Your task to perform on an android device: turn pop-ups on in chrome Image 0: 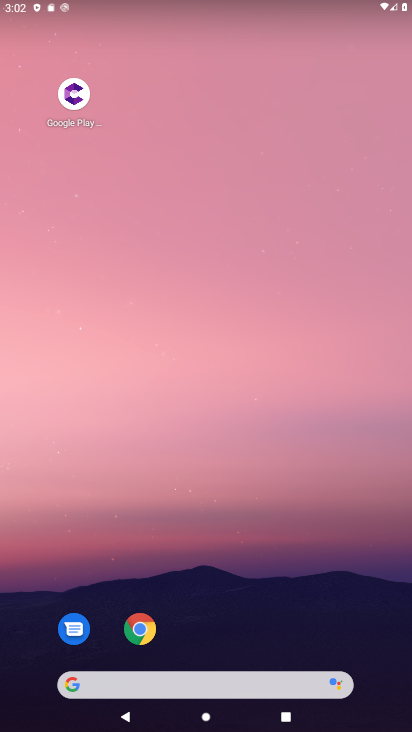
Step 0: drag from (169, 310) to (149, 14)
Your task to perform on an android device: turn pop-ups on in chrome Image 1: 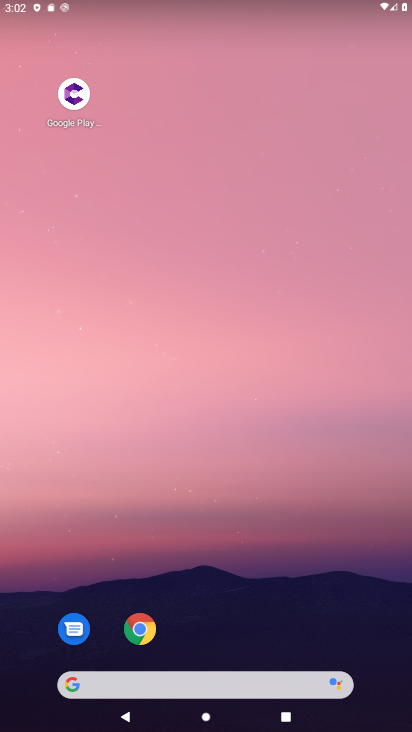
Step 1: drag from (202, 506) to (94, 16)
Your task to perform on an android device: turn pop-ups on in chrome Image 2: 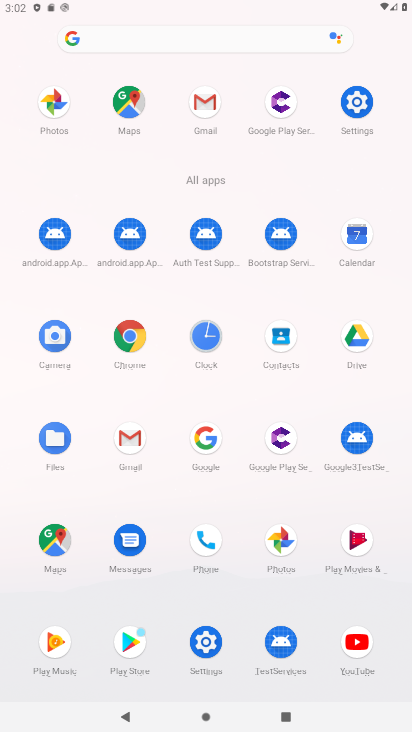
Step 2: click (132, 348)
Your task to perform on an android device: turn pop-ups on in chrome Image 3: 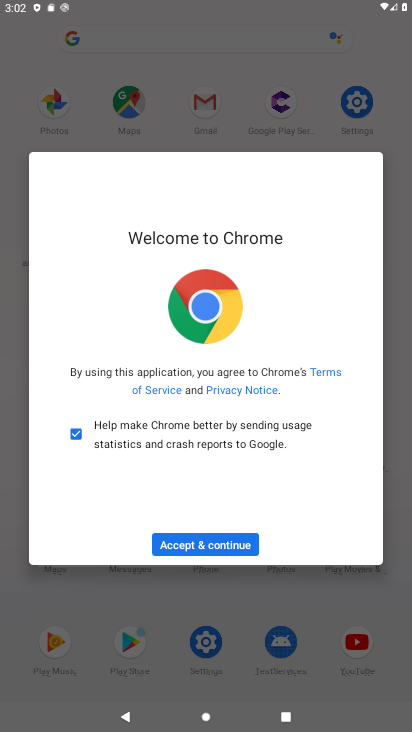
Step 3: click (238, 538)
Your task to perform on an android device: turn pop-ups on in chrome Image 4: 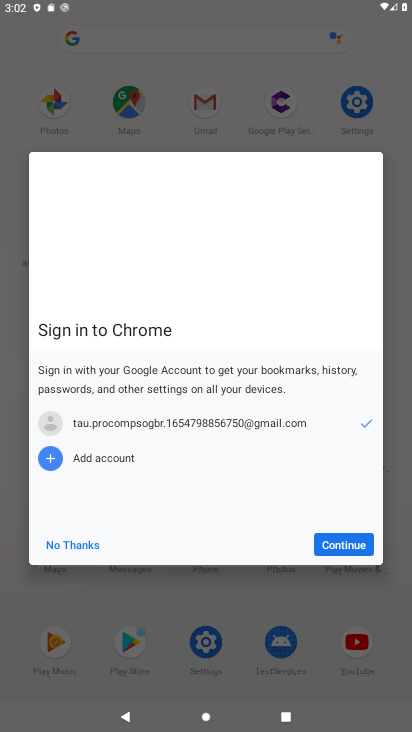
Step 4: click (363, 549)
Your task to perform on an android device: turn pop-ups on in chrome Image 5: 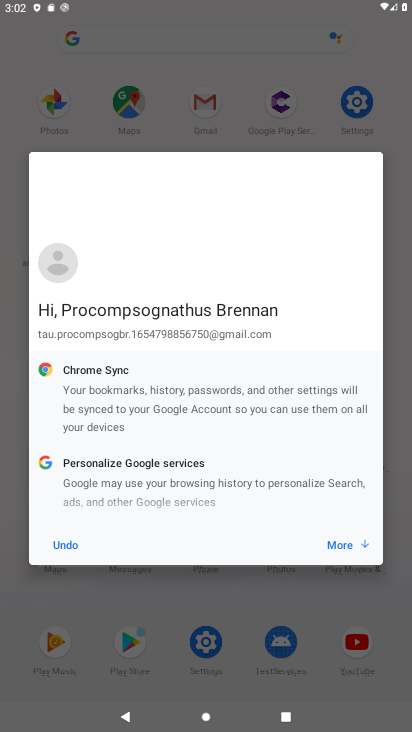
Step 5: click (350, 549)
Your task to perform on an android device: turn pop-ups on in chrome Image 6: 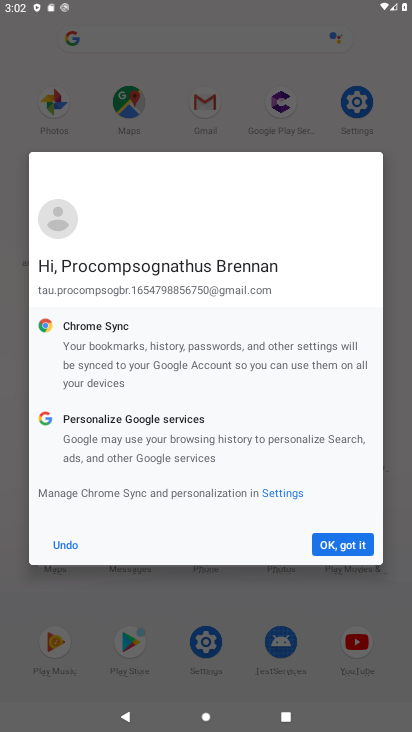
Step 6: click (350, 549)
Your task to perform on an android device: turn pop-ups on in chrome Image 7: 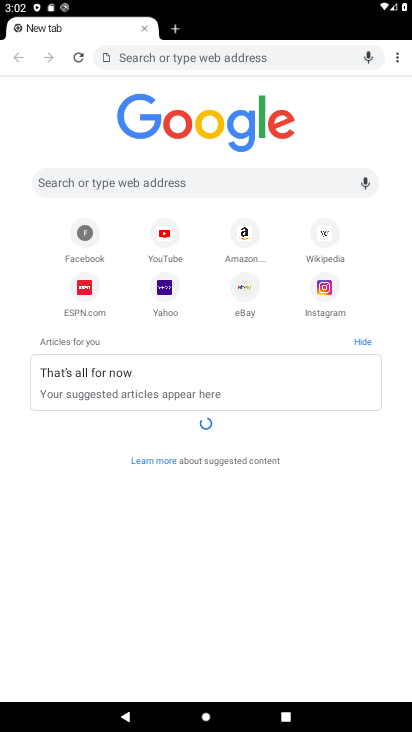
Step 7: click (397, 59)
Your task to perform on an android device: turn pop-ups on in chrome Image 8: 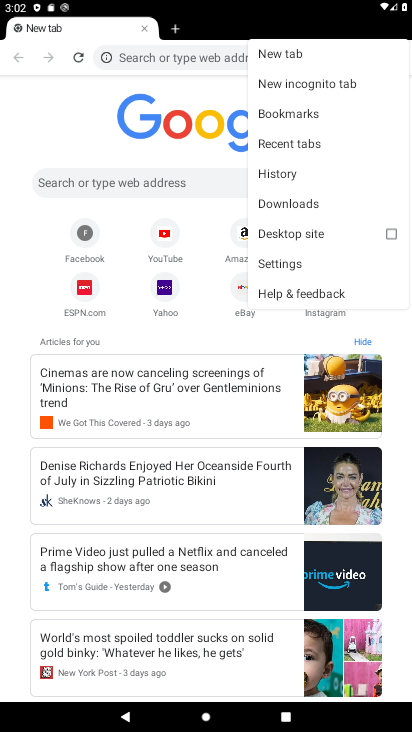
Step 8: click (284, 267)
Your task to perform on an android device: turn pop-ups on in chrome Image 9: 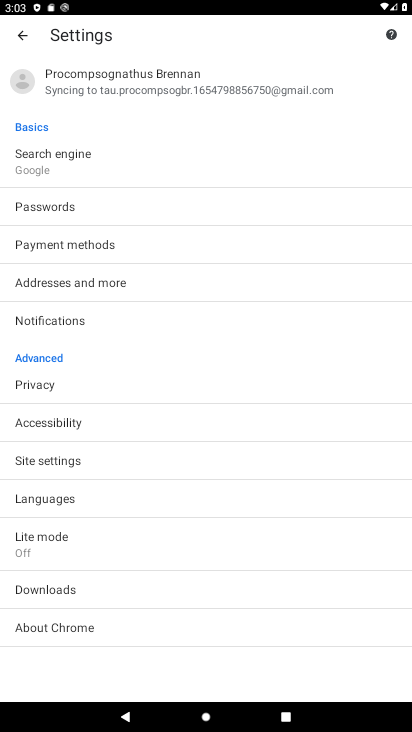
Step 9: click (56, 461)
Your task to perform on an android device: turn pop-ups on in chrome Image 10: 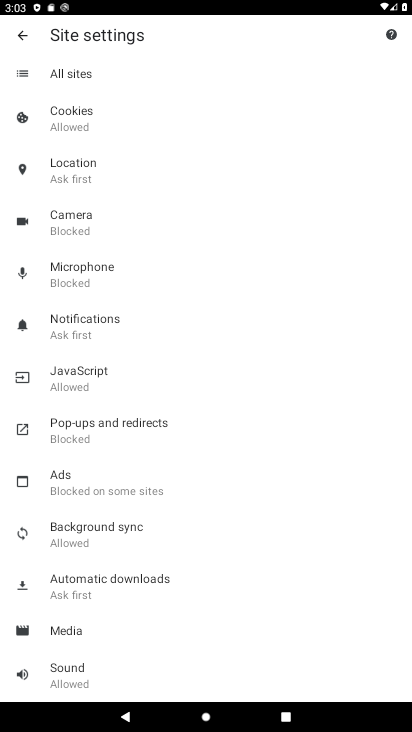
Step 10: click (79, 428)
Your task to perform on an android device: turn pop-ups on in chrome Image 11: 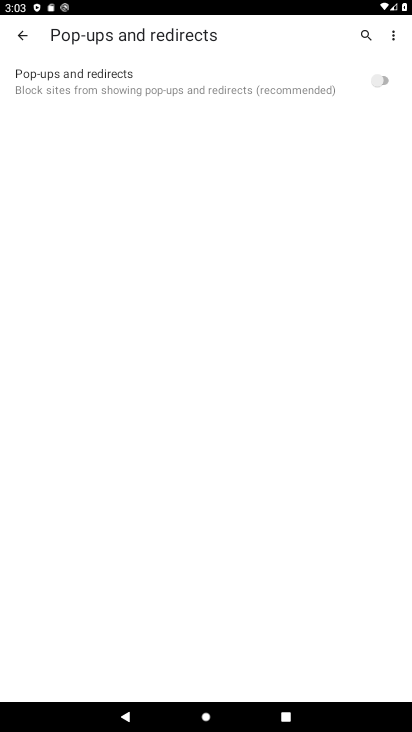
Step 11: click (382, 79)
Your task to perform on an android device: turn pop-ups on in chrome Image 12: 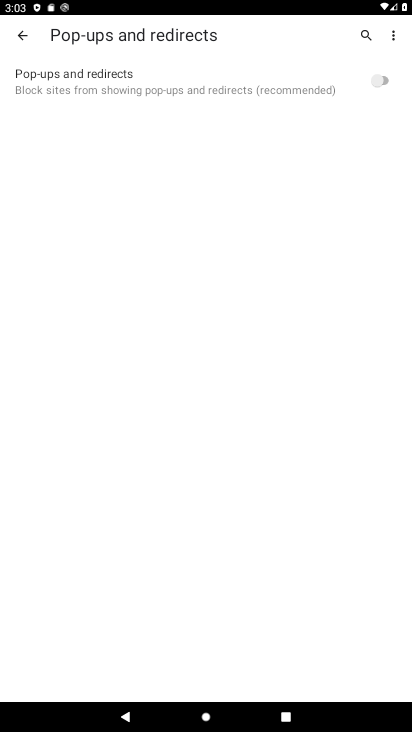
Step 12: click (385, 81)
Your task to perform on an android device: turn pop-ups on in chrome Image 13: 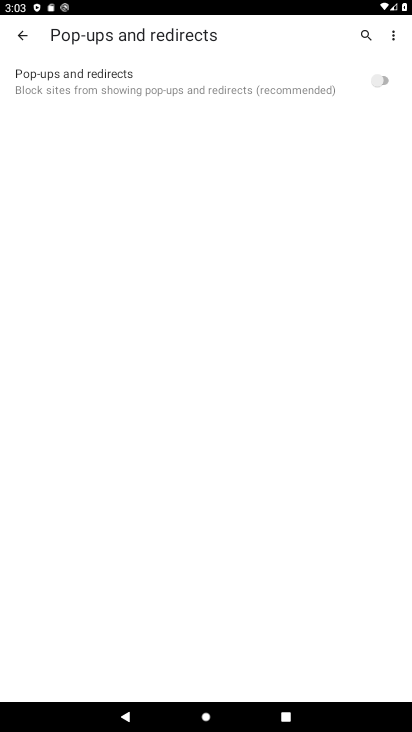
Step 13: click (385, 81)
Your task to perform on an android device: turn pop-ups on in chrome Image 14: 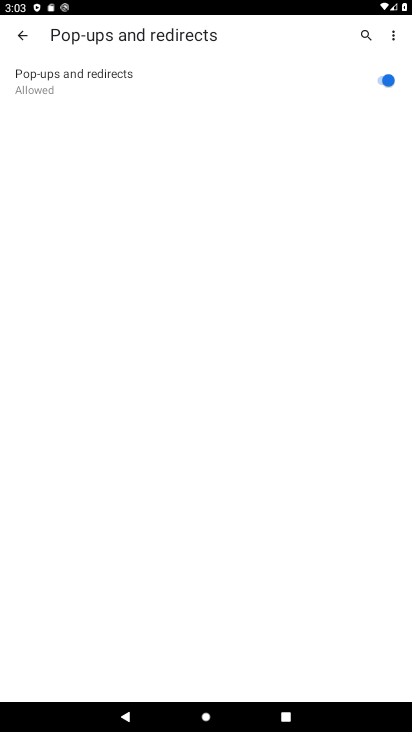
Step 14: click (385, 81)
Your task to perform on an android device: turn pop-ups on in chrome Image 15: 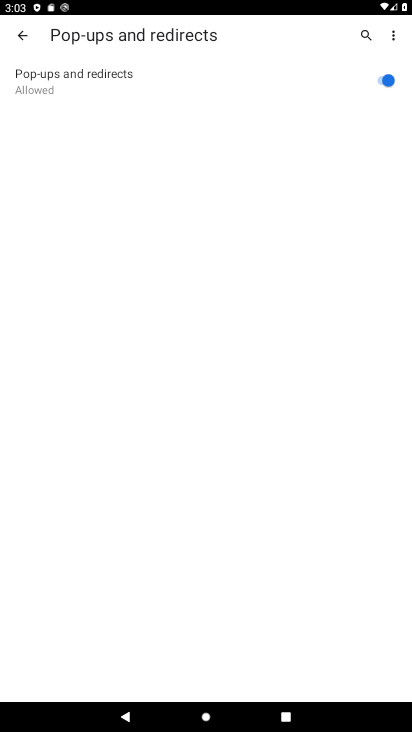
Step 15: task complete